Your task to perform on an android device: Is it going to rain this weekend? Image 0: 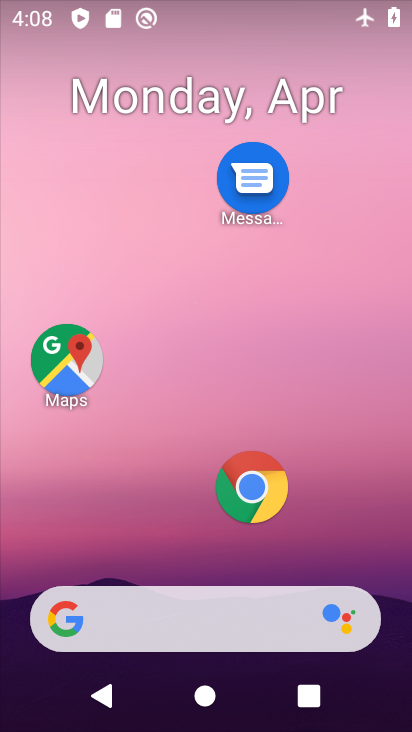
Step 0: click (178, 600)
Your task to perform on an android device: Is it going to rain this weekend? Image 1: 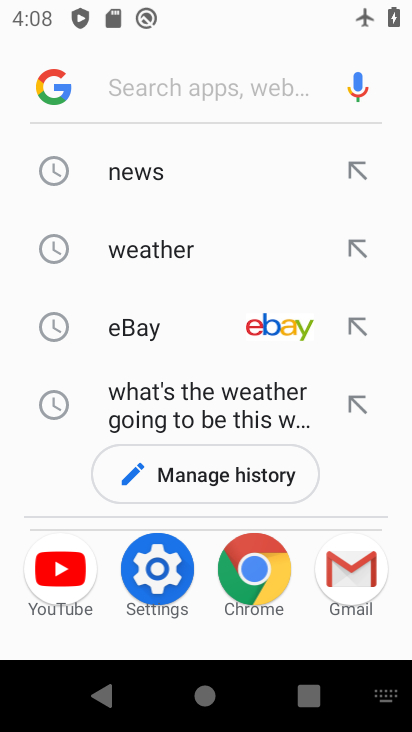
Step 1: click (142, 263)
Your task to perform on an android device: Is it going to rain this weekend? Image 2: 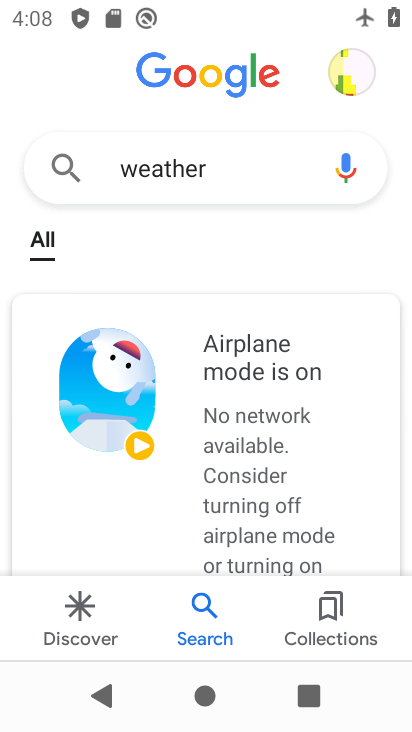
Step 2: task complete